Your task to perform on an android device: turn pop-ups on in chrome Image 0: 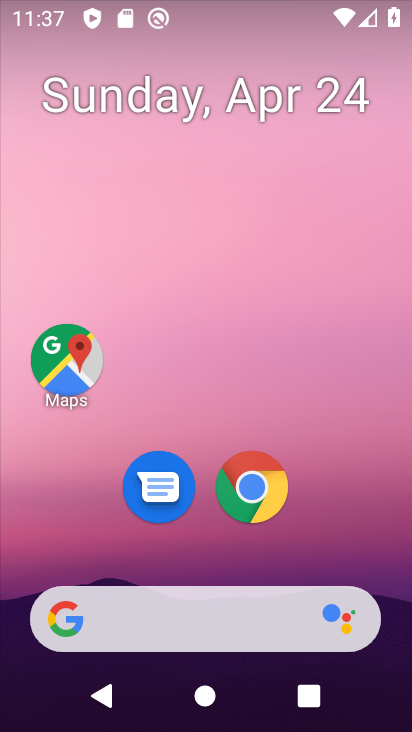
Step 0: drag from (392, 615) to (259, 77)
Your task to perform on an android device: turn pop-ups on in chrome Image 1: 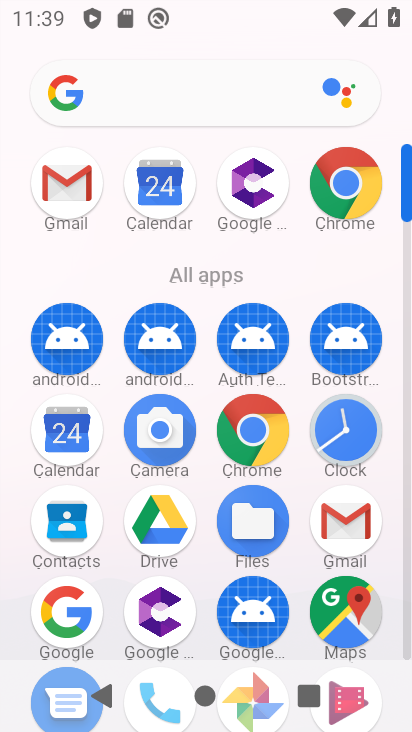
Step 1: click (253, 432)
Your task to perform on an android device: turn pop-ups on in chrome Image 2: 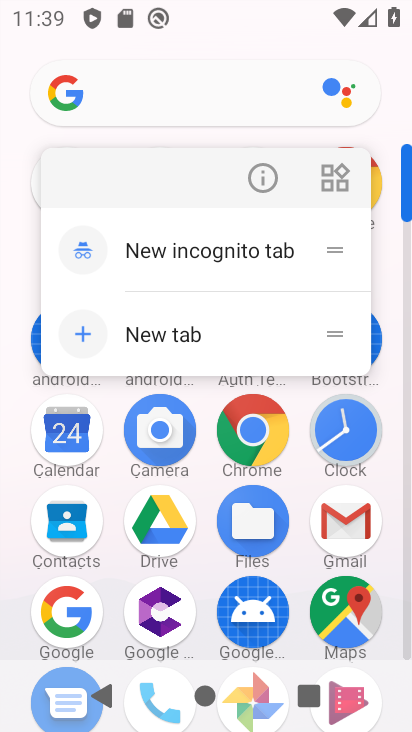
Step 2: click (253, 432)
Your task to perform on an android device: turn pop-ups on in chrome Image 3: 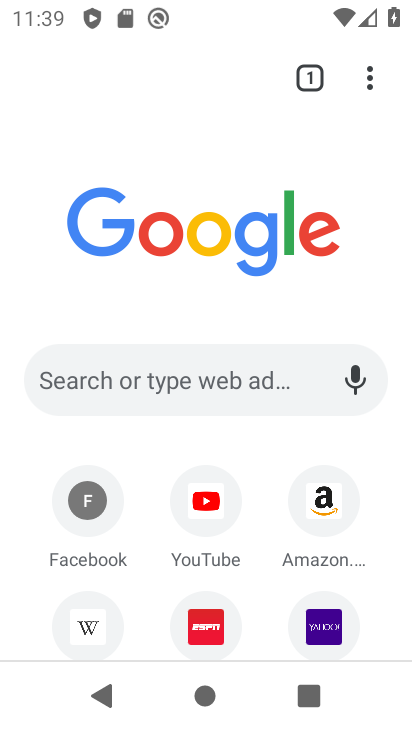
Step 3: click (370, 80)
Your task to perform on an android device: turn pop-ups on in chrome Image 4: 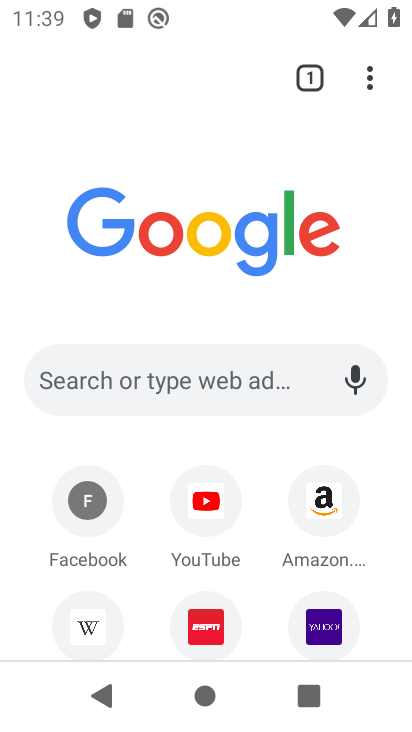
Step 4: click (370, 80)
Your task to perform on an android device: turn pop-ups on in chrome Image 5: 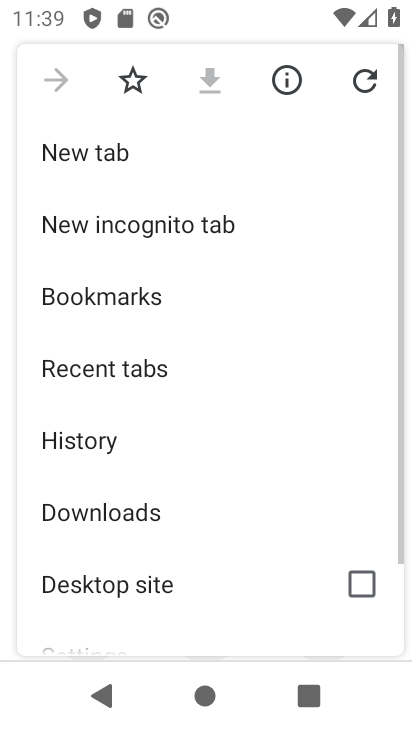
Step 5: drag from (169, 561) to (242, 133)
Your task to perform on an android device: turn pop-ups on in chrome Image 6: 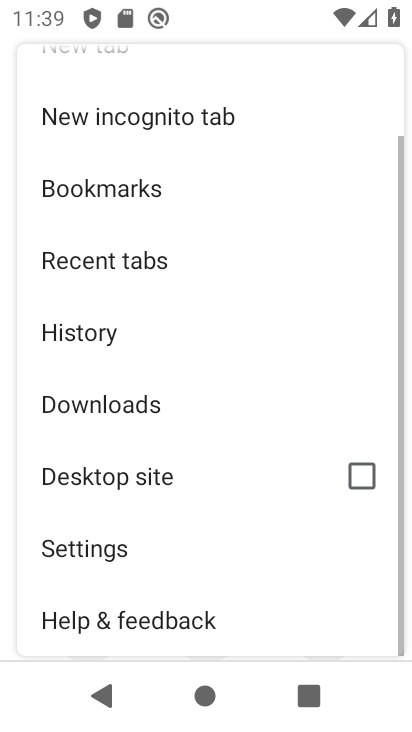
Step 6: click (113, 542)
Your task to perform on an android device: turn pop-ups on in chrome Image 7: 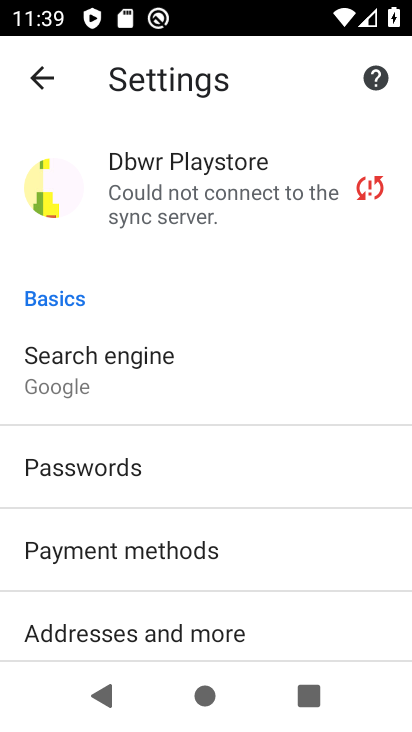
Step 7: drag from (129, 620) to (201, 119)
Your task to perform on an android device: turn pop-ups on in chrome Image 8: 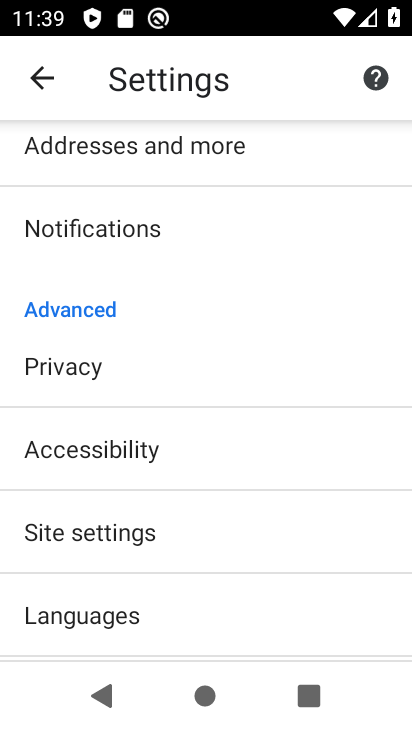
Step 8: click (187, 537)
Your task to perform on an android device: turn pop-ups on in chrome Image 9: 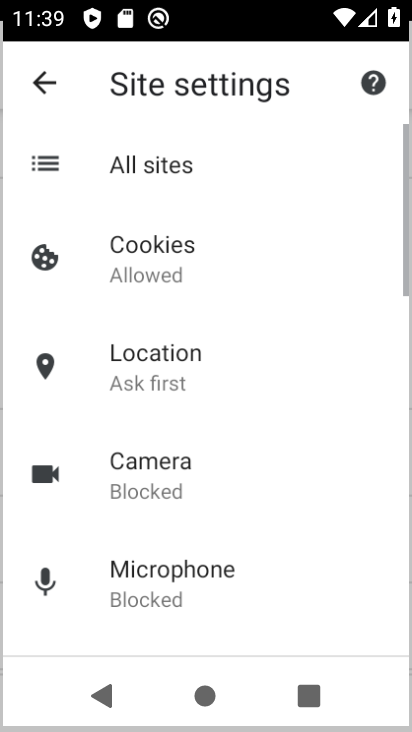
Step 9: drag from (152, 626) to (250, 200)
Your task to perform on an android device: turn pop-ups on in chrome Image 10: 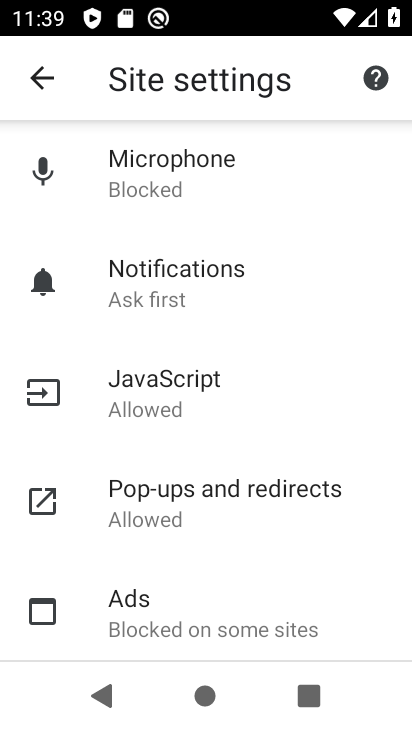
Step 10: click (177, 498)
Your task to perform on an android device: turn pop-ups on in chrome Image 11: 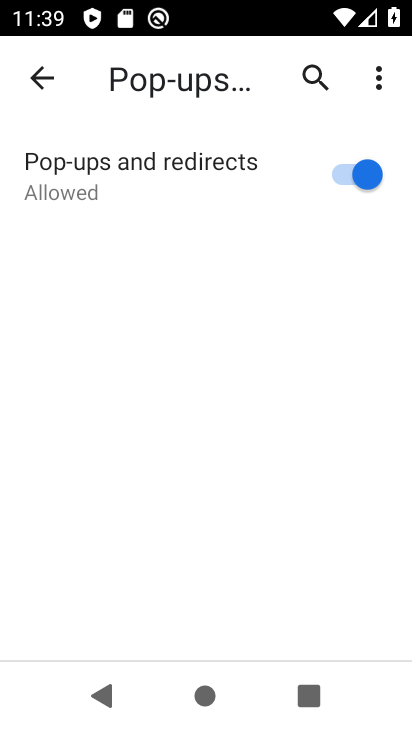
Step 11: task complete